Your task to perform on an android device: add a contact in the contacts app Image 0: 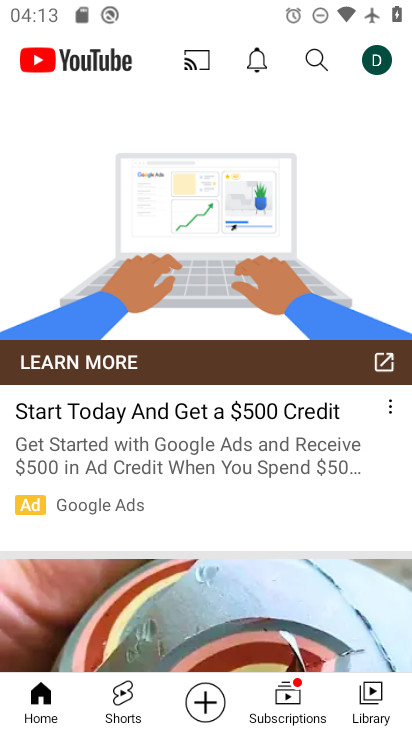
Step 0: press home button
Your task to perform on an android device: add a contact in the contacts app Image 1: 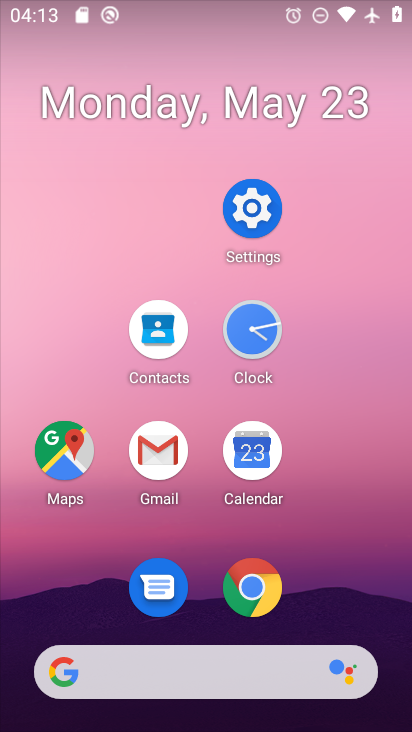
Step 1: click (161, 352)
Your task to perform on an android device: add a contact in the contacts app Image 2: 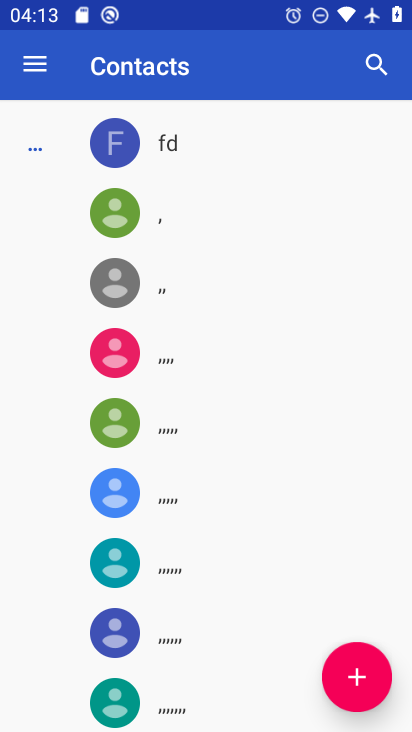
Step 2: click (352, 683)
Your task to perform on an android device: add a contact in the contacts app Image 3: 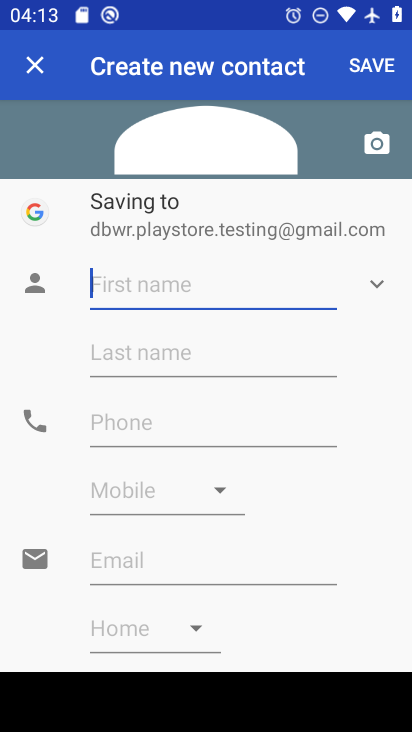
Step 3: type "zxsacsd"
Your task to perform on an android device: add a contact in the contacts app Image 4: 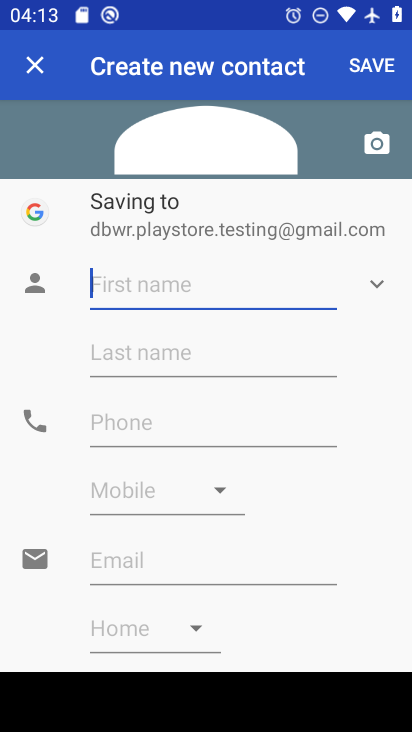
Step 4: click (133, 343)
Your task to perform on an android device: add a contact in the contacts app Image 5: 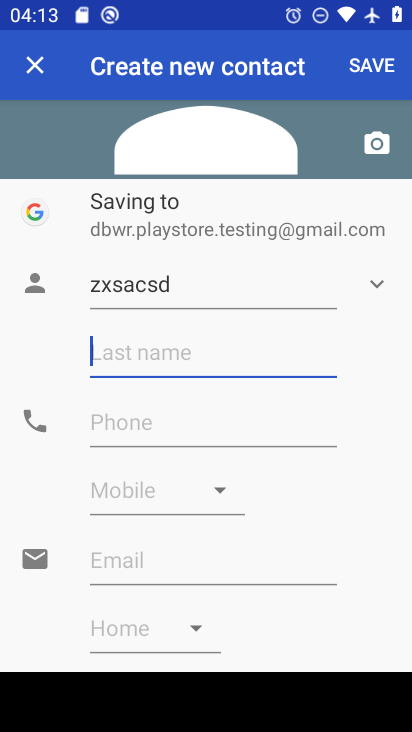
Step 5: click (173, 422)
Your task to perform on an android device: add a contact in the contacts app Image 6: 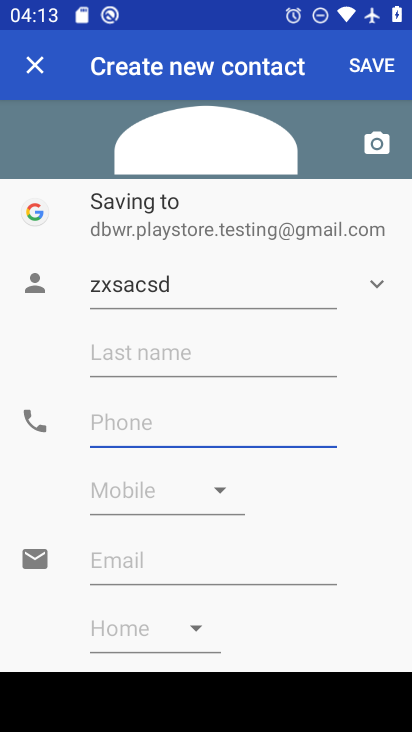
Step 6: type "34324345435345"
Your task to perform on an android device: add a contact in the contacts app Image 7: 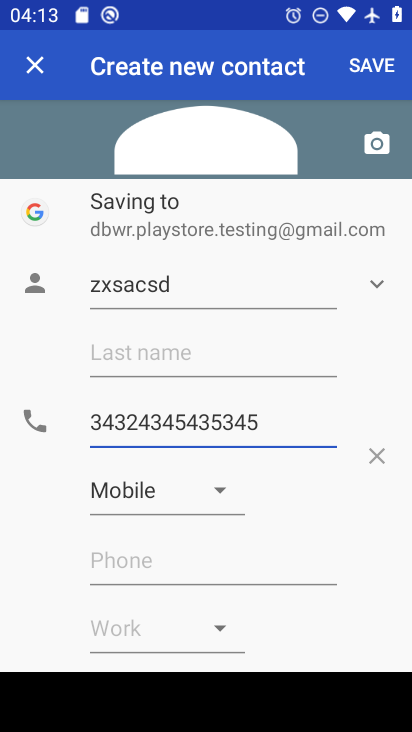
Step 7: click (371, 65)
Your task to perform on an android device: add a contact in the contacts app Image 8: 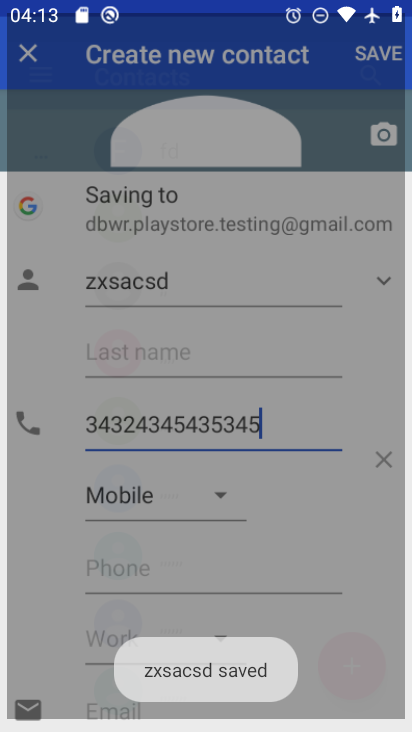
Step 8: task complete